Your task to perform on an android device: Turn on the flashlight Image 0: 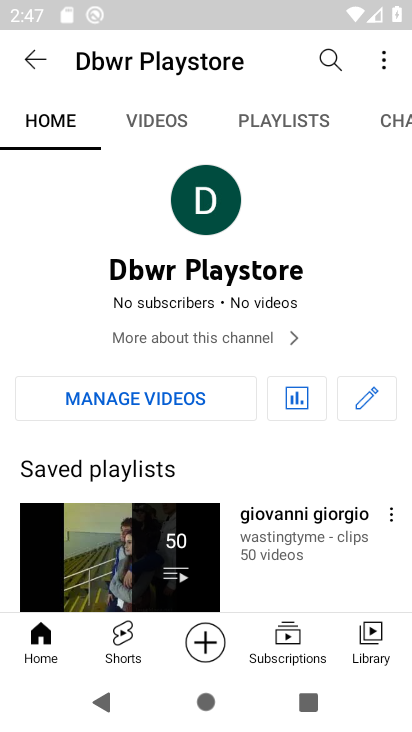
Step 0: press home button
Your task to perform on an android device: Turn on the flashlight Image 1: 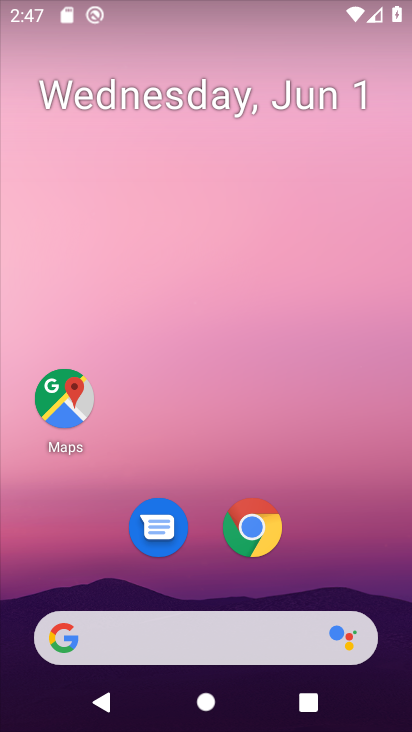
Step 1: drag from (232, 570) to (356, 39)
Your task to perform on an android device: Turn on the flashlight Image 2: 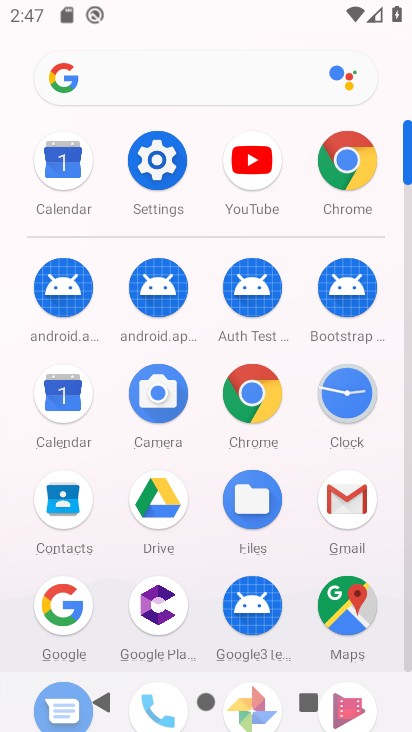
Step 2: click (151, 191)
Your task to perform on an android device: Turn on the flashlight Image 3: 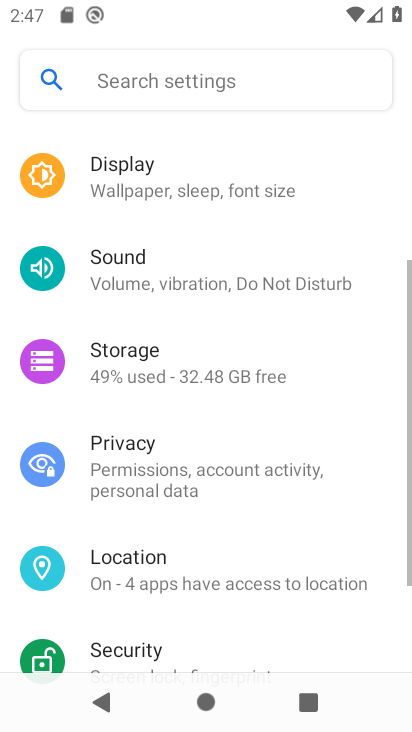
Step 3: click (202, 90)
Your task to perform on an android device: Turn on the flashlight Image 4: 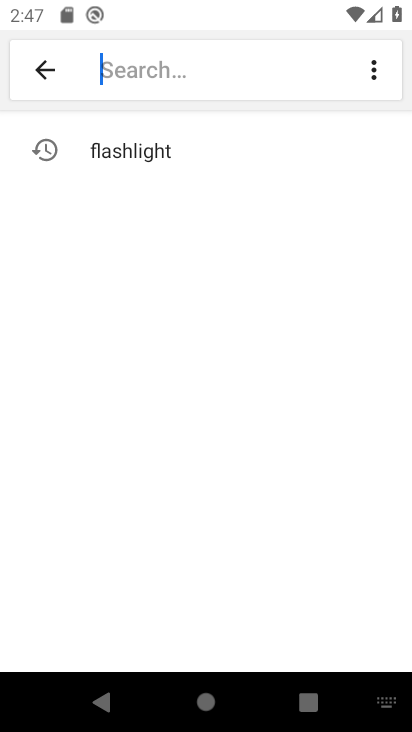
Step 4: type "flashlight"
Your task to perform on an android device: Turn on the flashlight Image 5: 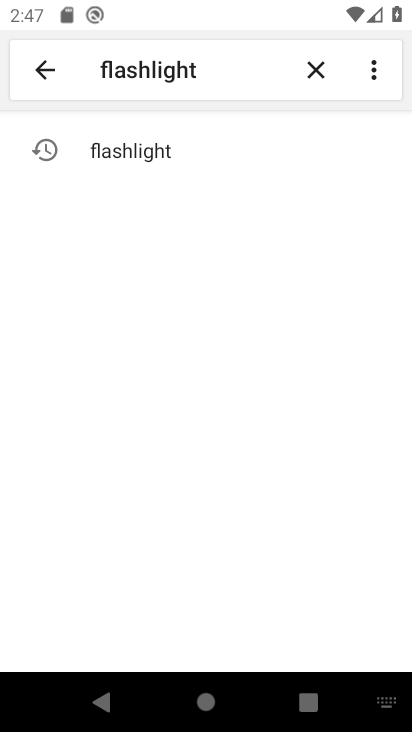
Step 5: click (150, 142)
Your task to perform on an android device: Turn on the flashlight Image 6: 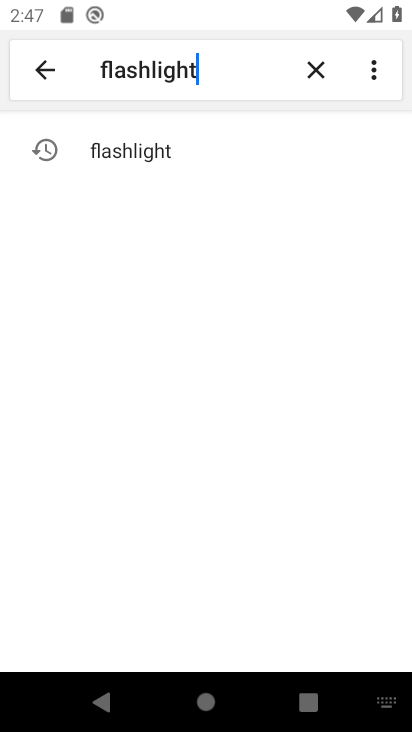
Step 6: click (151, 140)
Your task to perform on an android device: Turn on the flashlight Image 7: 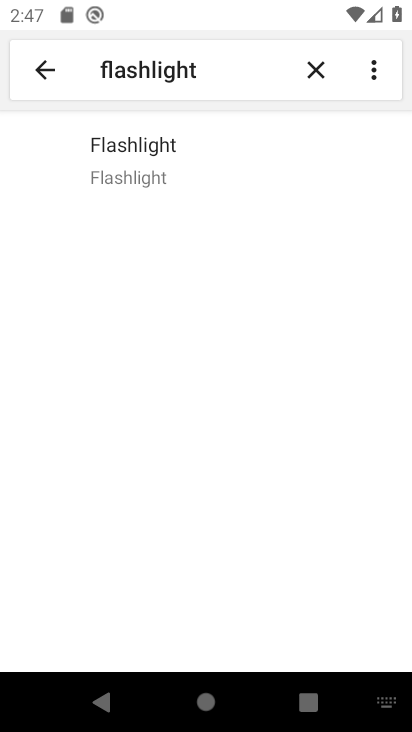
Step 7: click (150, 147)
Your task to perform on an android device: Turn on the flashlight Image 8: 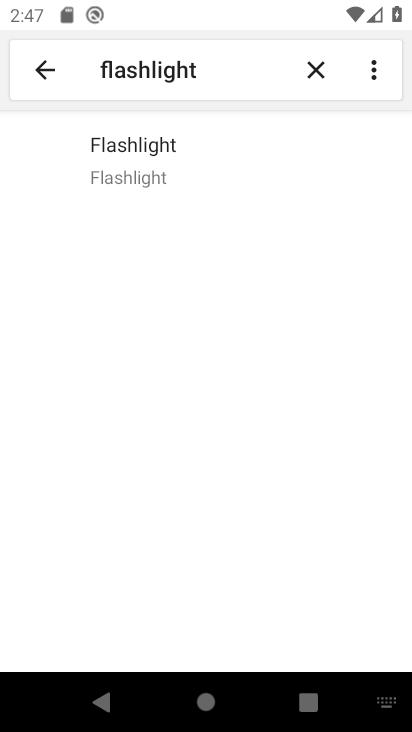
Step 8: task complete